Your task to perform on an android device: turn pop-ups on in chrome Image 0: 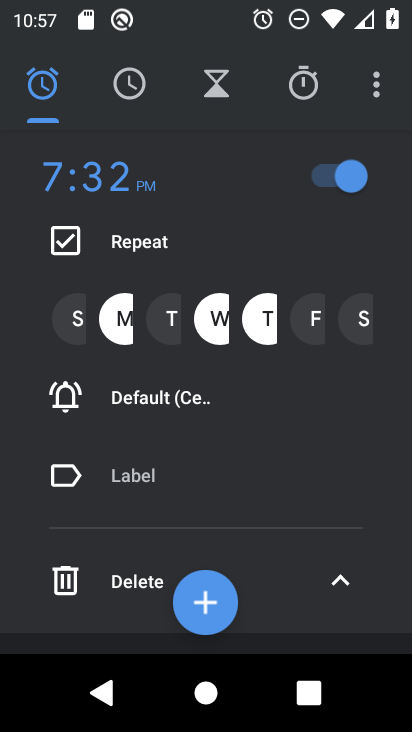
Step 0: press home button
Your task to perform on an android device: turn pop-ups on in chrome Image 1: 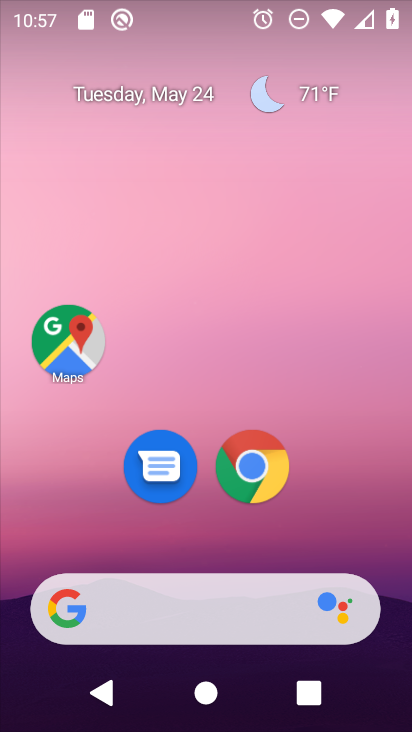
Step 1: click (248, 452)
Your task to perform on an android device: turn pop-ups on in chrome Image 2: 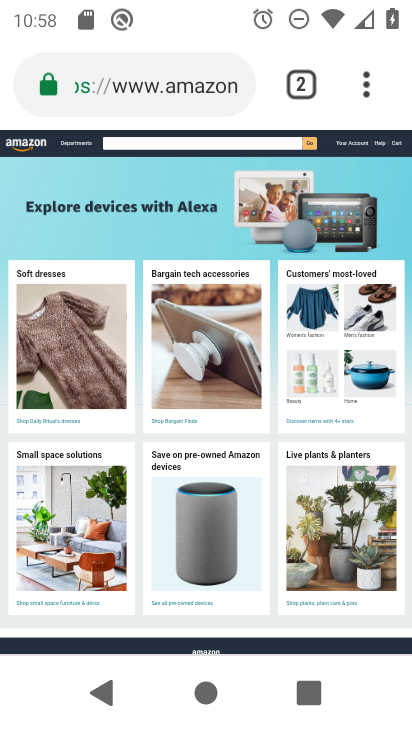
Step 2: click (367, 78)
Your task to perform on an android device: turn pop-ups on in chrome Image 3: 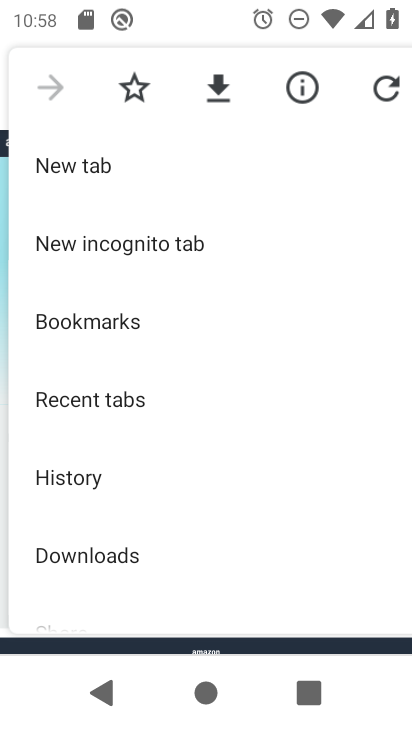
Step 3: drag from (109, 563) to (197, 273)
Your task to perform on an android device: turn pop-ups on in chrome Image 4: 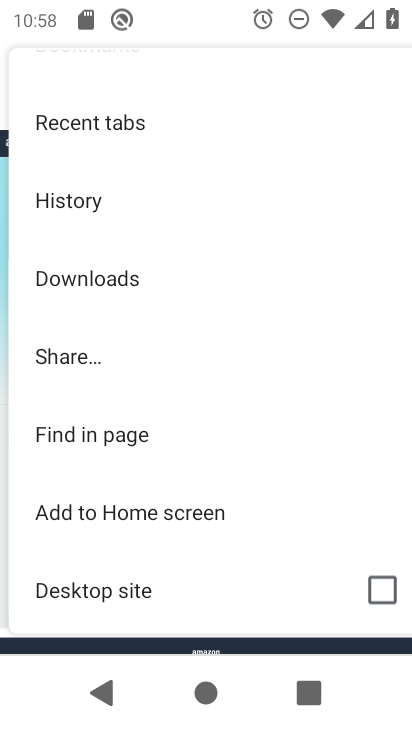
Step 4: drag from (98, 600) to (161, 378)
Your task to perform on an android device: turn pop-ups on in chrome Image 5: 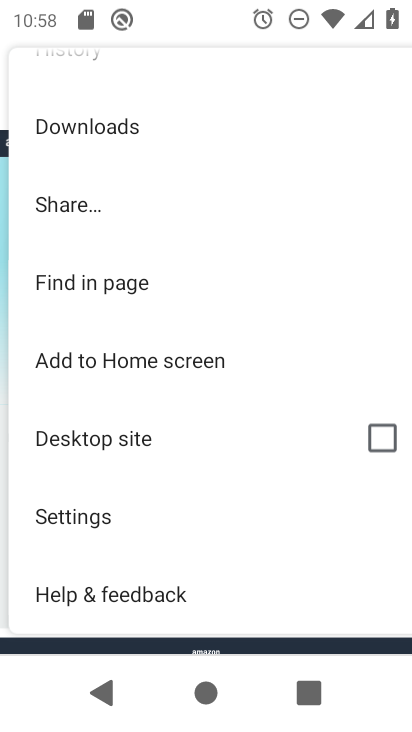
Step 5: click (87, 522)
Your task to perform on an android device: turn pop-ups on in chrome Image 6: 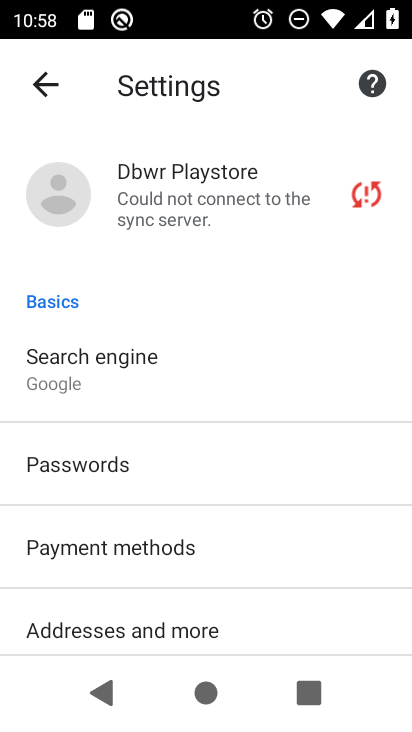
Step 6: drag from (74, 620) to (195, 259)
Your task to perform on an android device: turn pop-ups on in chrome Image 7: 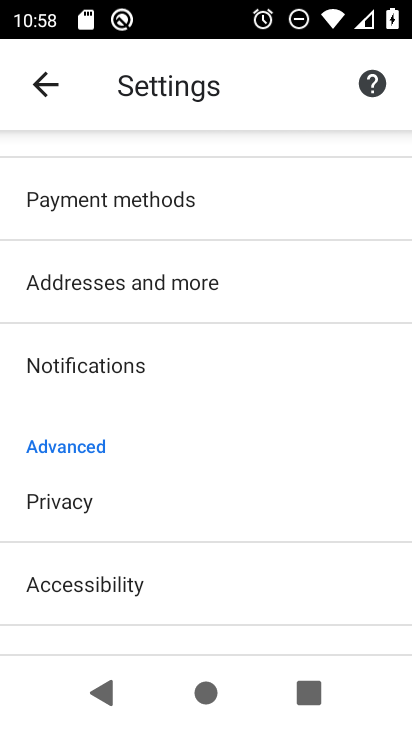
Step 7: drag from (127, 554) to (177, 345)
Your task to perform on an android device: turn pop-ups on in chrome Image 8: 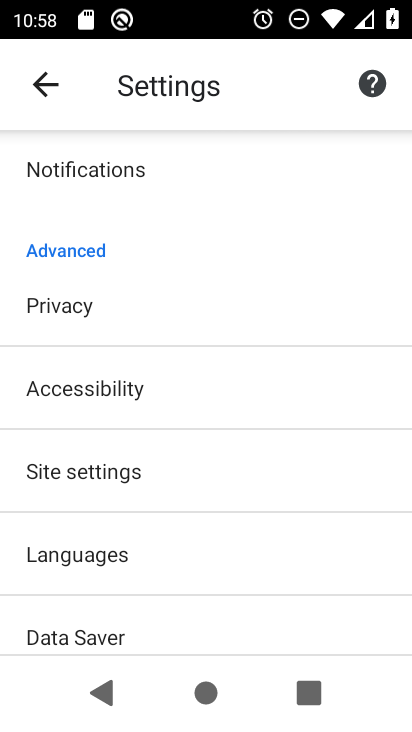
Step 8: click (120, 482)
Your task to perform on an android device: turn pop-ups on in chrome Image 9: 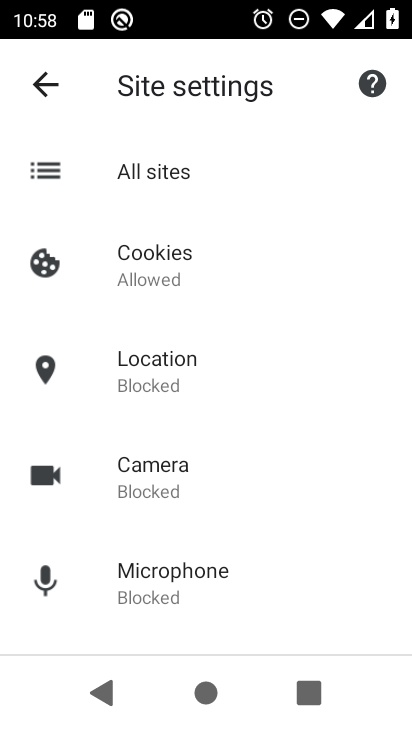
Step 9: drag from (158, 566) to (218, 322)
Your task to perform on an android device: turn pop-ups on in chrome Image 10: 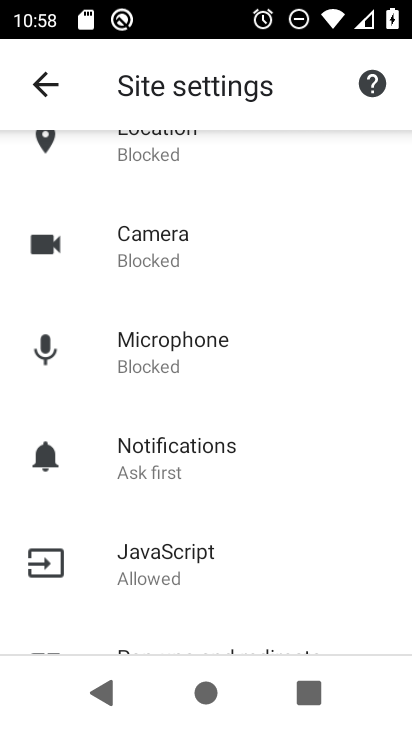
Step 10: drag from (164, 540) to (235, 300)
Your task to perform on an android device: turn pop-ups on in chrome Image 11: 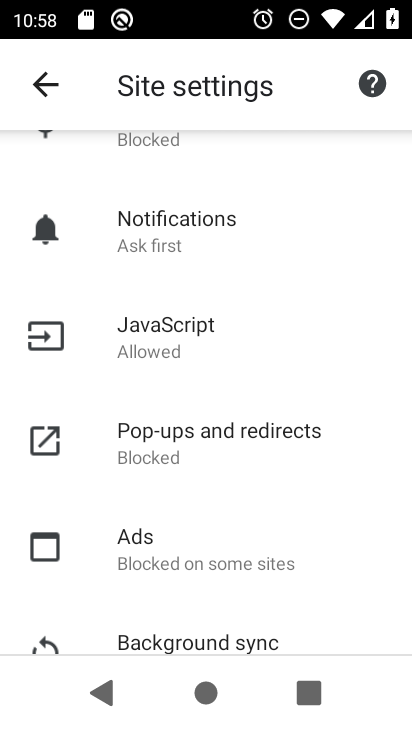
Step 11: click (213, 447)
Your task to perform on an android device: turn pop-ups on in chrome Image 12: 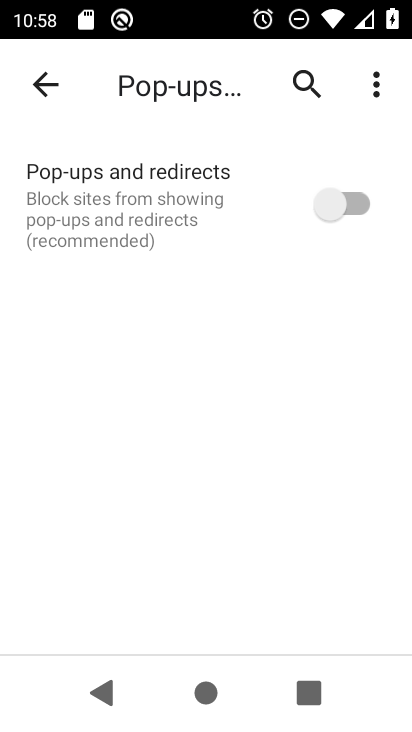
Step 12: click (376, 192)
Your task to perform on an android device: turn pop-ups on in chrome Image 13: 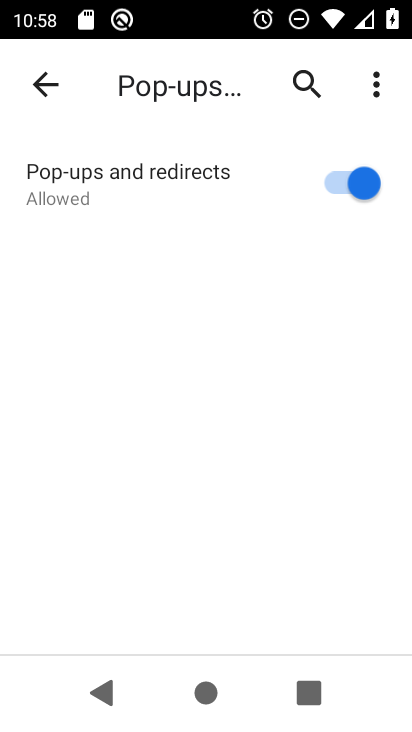
Step 13: task complete